Your task to perform on an android device: toggle data saver in the chrome app Image 0: 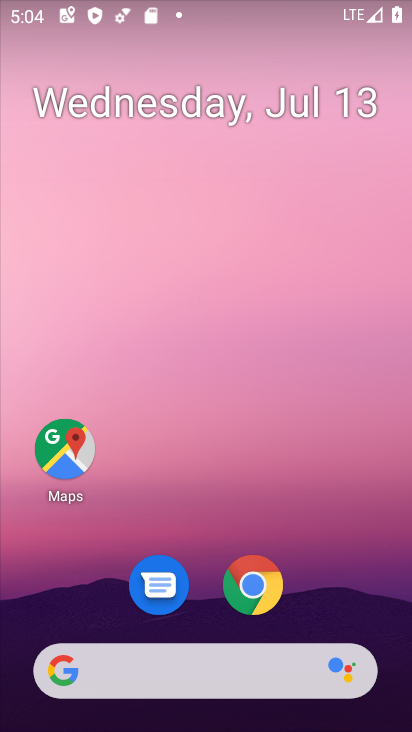
Step 0: click (269, 582)
Your task to perform on an android device: toggle data saver in the chrome app Image 1: 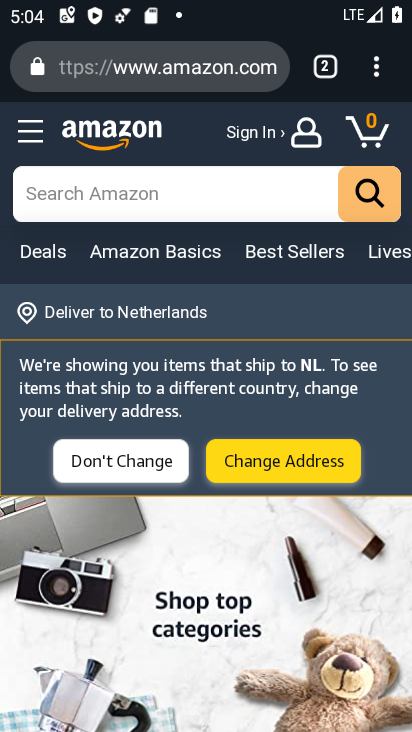
Step 1: click (375, 72)
Your task to perform on an android device: toggle data saver in the chrome app Image 2: 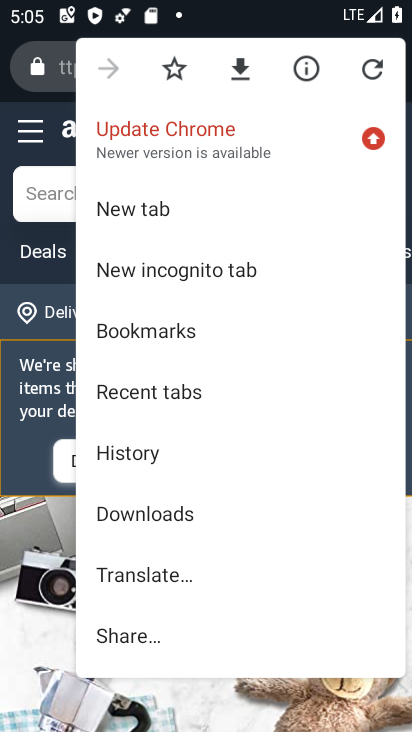
Step 2: drag from (207, 562) to (216, 283)
Your task to perform on an android device: toggle data saver in the chrome app Image 3: 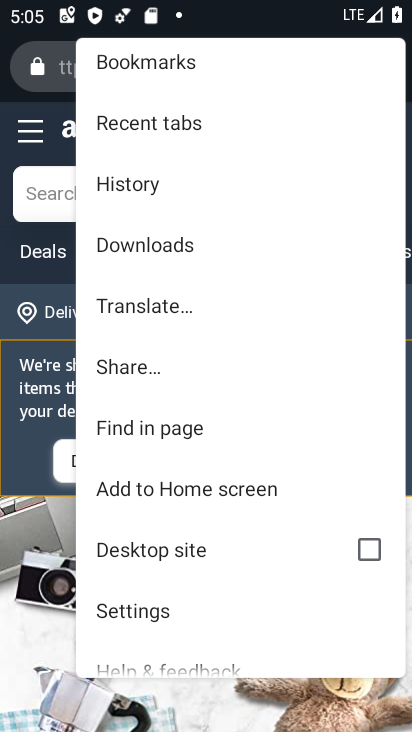
Step 3: click (152, 604)
Your task to perform on an android device: toggle data saver in the chrome app Image 4: 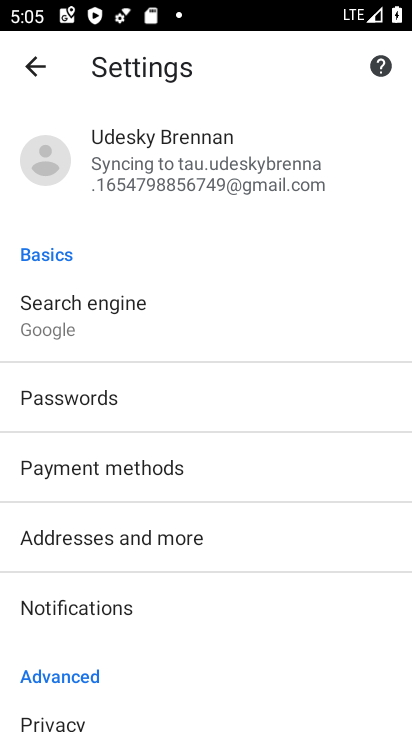
Step 4: drag from (258, 537) to (273, 162)
Your task to perform on an android device: toggle data saver in the chrome app Image 5: 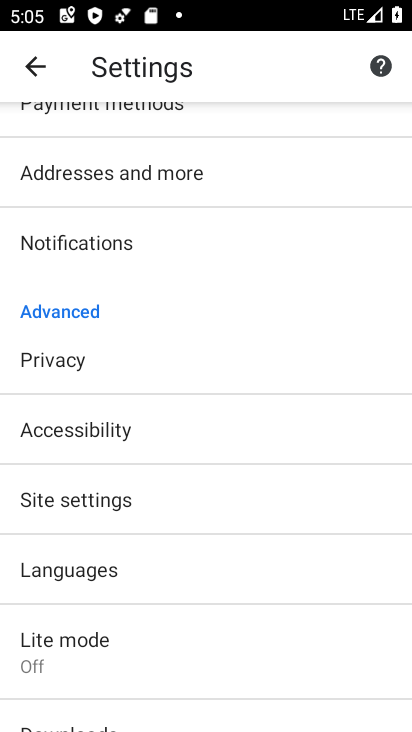
Step 5: click (122, 655)
Your task to perform on an android device: toggle data saver in the chrome app Image 6: 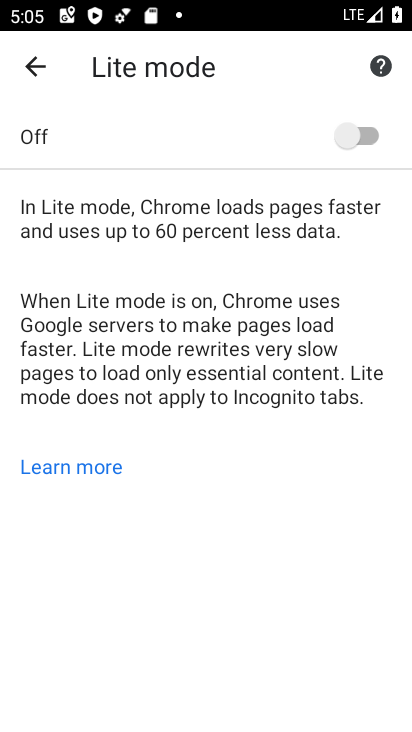
Step 6: click (356, 137)
Your task to perform on an android device: toggle data saver in the chrome app Image 7: 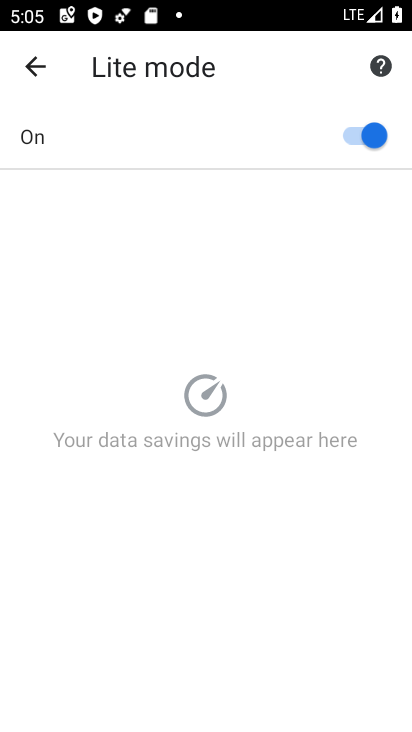
Step 7: task complete